Your task to perform on an android device: Go to CNN.com Image 0: 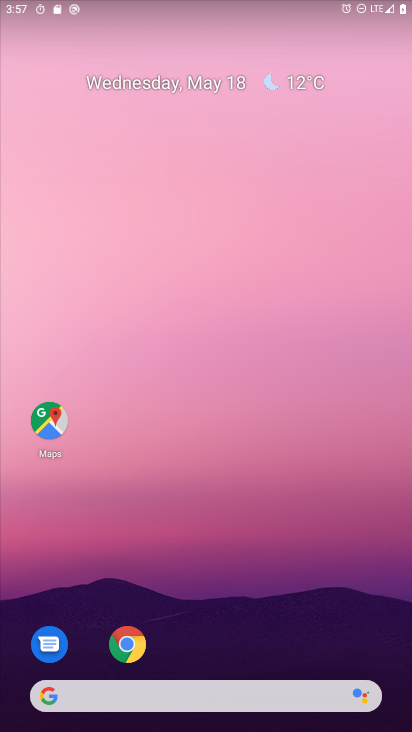
Step 0: click (126, 647)
Your task to perform on an android device: Go to CNN.com Image 1: 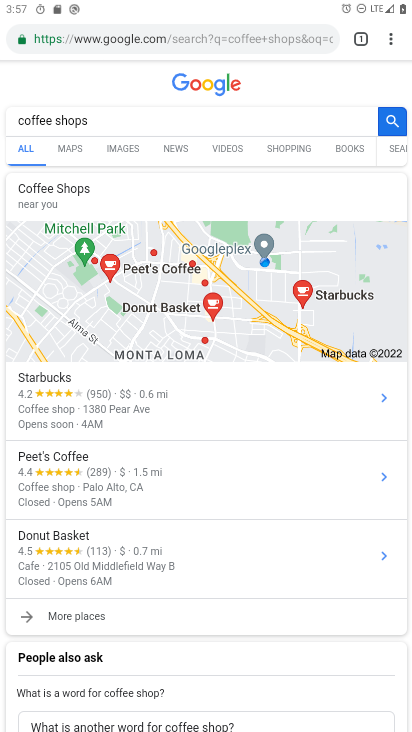
Step 1: click (329, 38)
Your task to perform on an android device: Go to CNN.com Image 2: 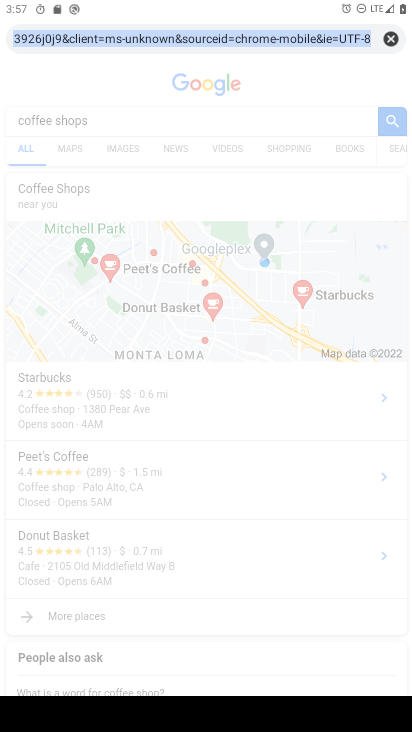
Step 2: click (386, 37)
Your task to perform on an android device: Go to CNN.com Image 3: 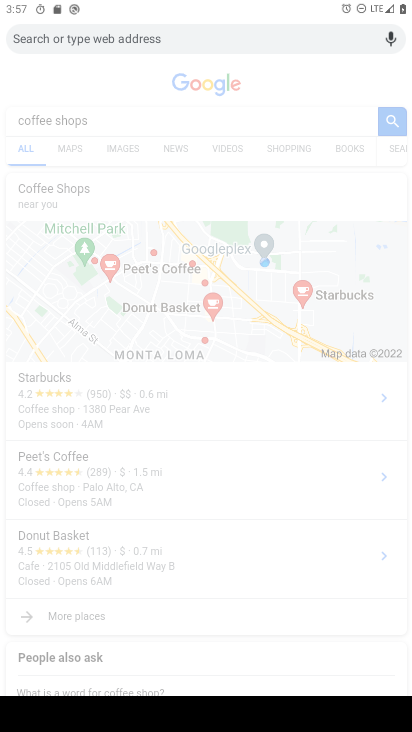
Step 3: type "CNN.com"
Your task to perform on an android device: Go to CNN.com Image 4: 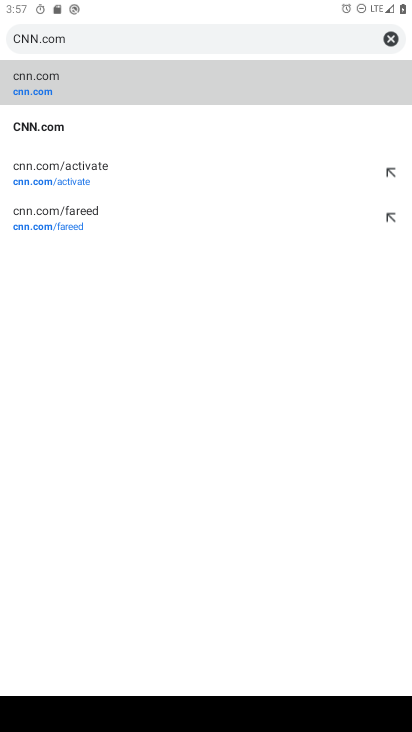
Step 4: click (30, 128)
Your task to perform on an android device: Go to CNN.com Image 5: 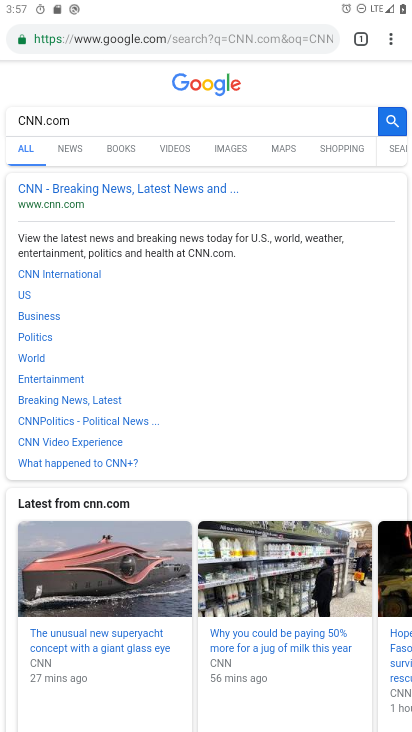
Step 5: task complete